Your task to perform on an android device: toggle show notifications on the lock screen Image 0: 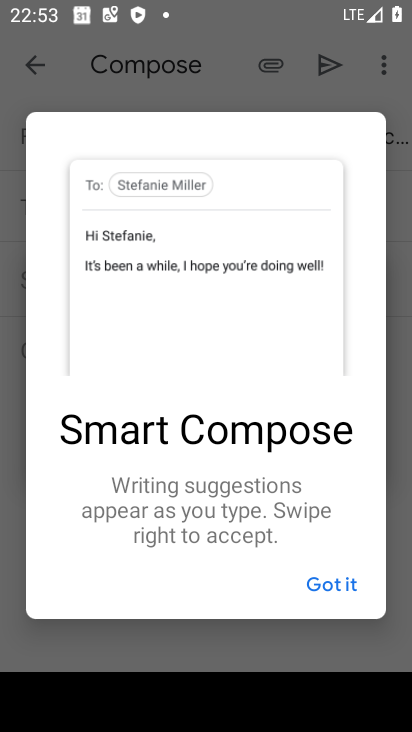
Step 0: press home button
Your task to perform on an android device: toggle show notifications on the lock screen Image 1: 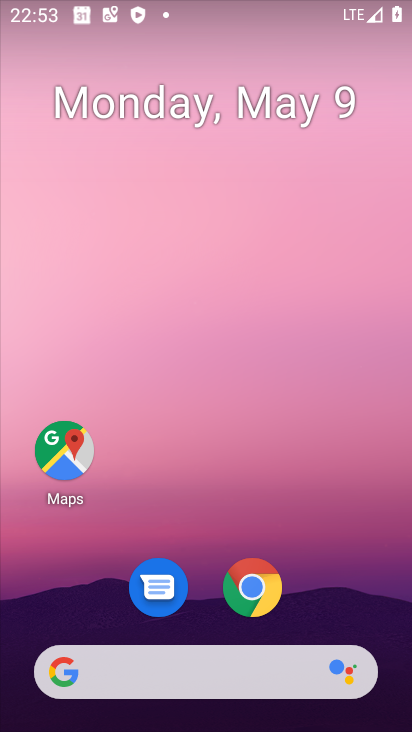
Step 1: drag from (251, 597) to (255, 12)
Your task to perform on an android device: toggle show notifications on the lock screen Image 2: 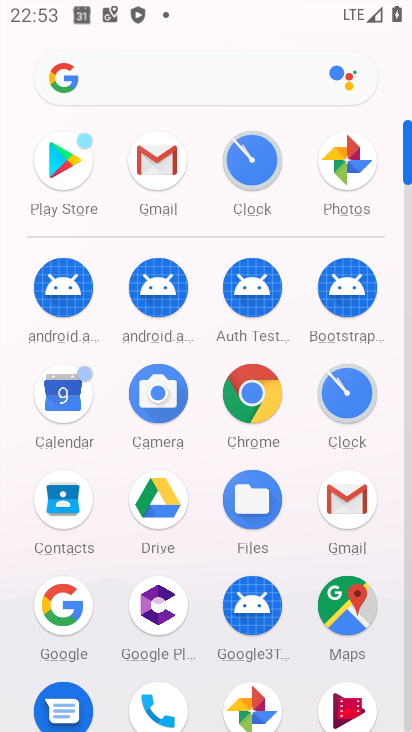
Step 2: drag from (213, 657) to (291, 285)
Your task to perform on an android device: toggle show notifications on the lock screen Image 3: 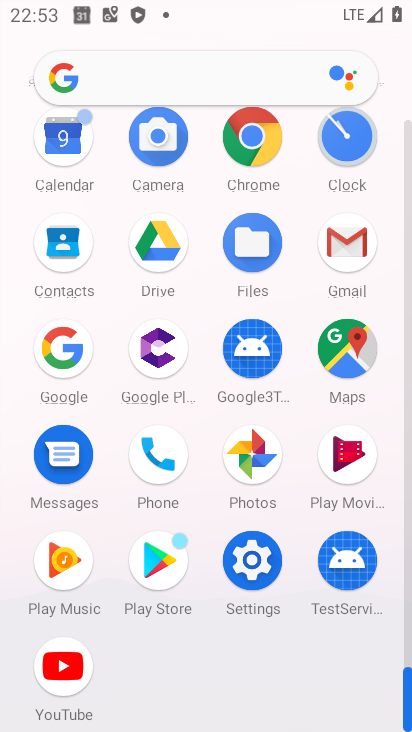
Step 3: click (243, 579)
Your task to perform on an android device: toggle show notifications on the lock screen Image 4: 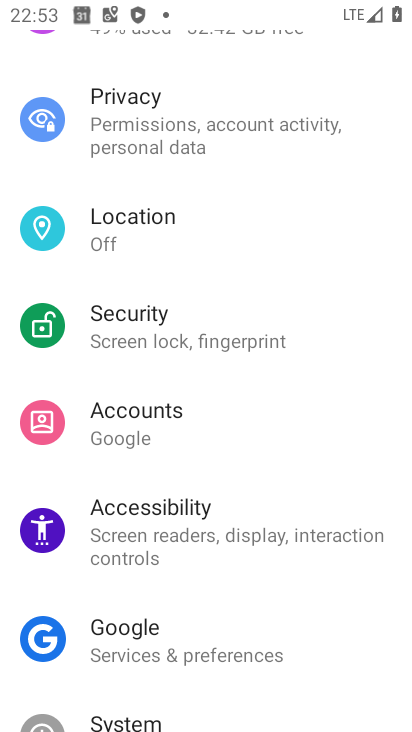
Step 4: drag from (173, 157) to (252, 717)
Your task to perform on an android device: toggle show notifications on the lock screen Image 5: 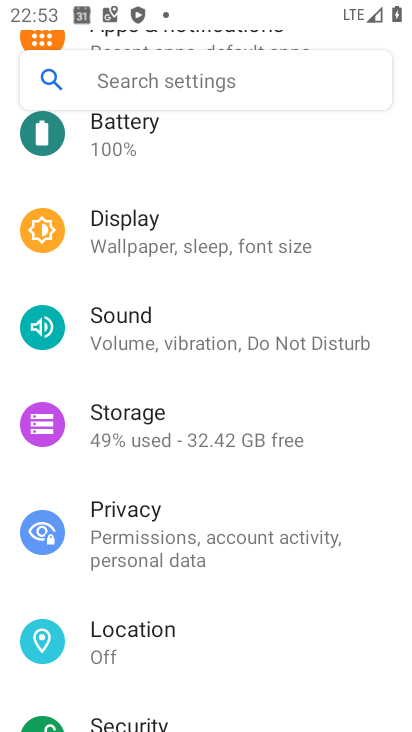
Step 5: drag from (160, 256) to (186, 526)
Your task to perform on an android device: toggle show notifications on the lock screen Image 6: 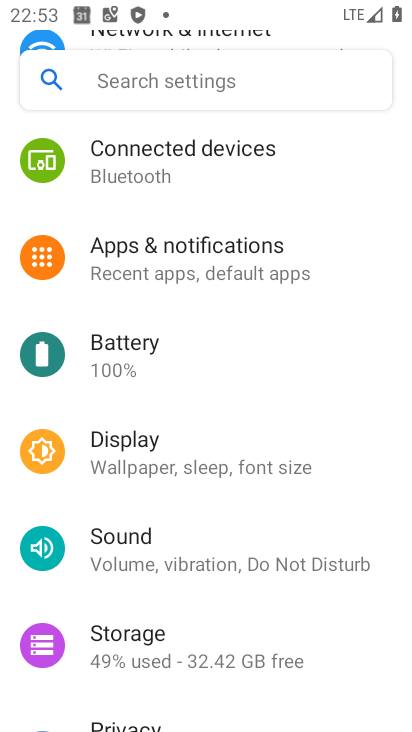
Step 6: click (146, 256)
Your task to perform on an android device: toggle show notifications on the lock screen Image 7: 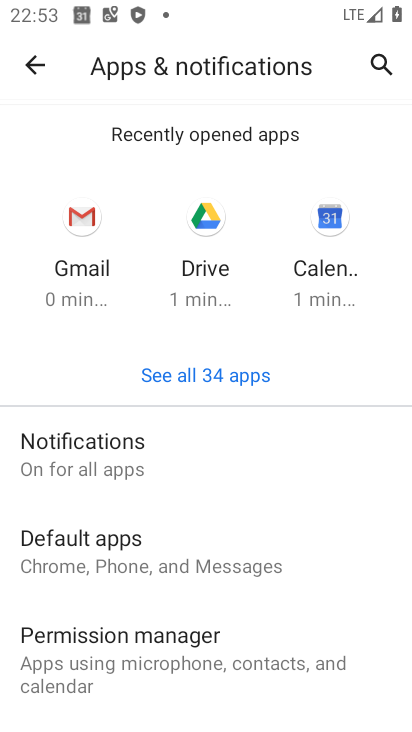
Step 7: click (71, 439)
Your task to perform on an android device: toggle show notifications on the lock screen Image 8: 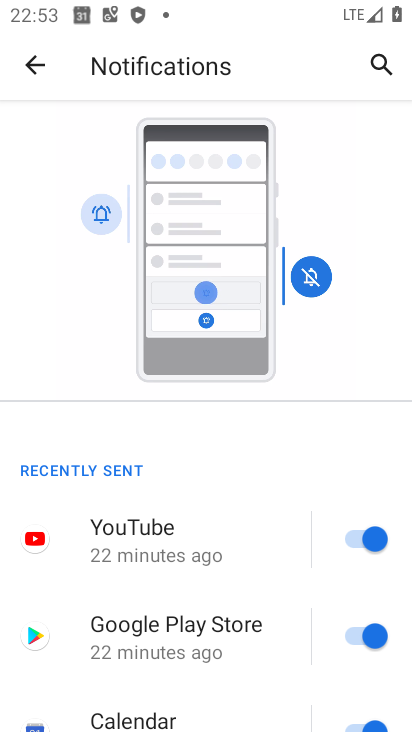
Step 8: drag from (142, 607) to (169, 154)
Your task to perform on an android device: toggle show notifications on the lock screen Image 9: 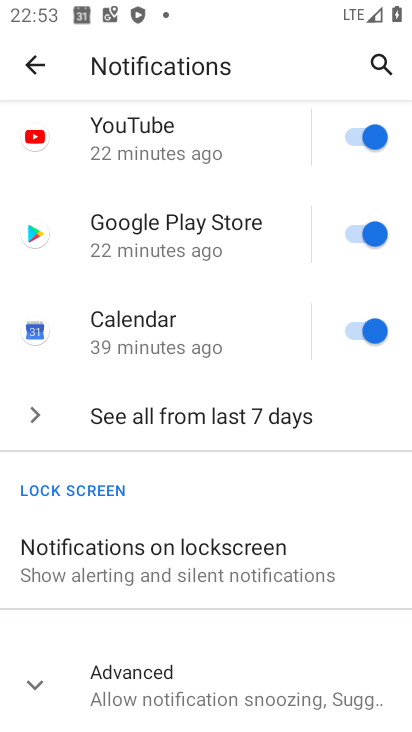
Step 9: click (197, 542)
Your task to perform on an android device: toggle show notifications on the lock screen Image 10: 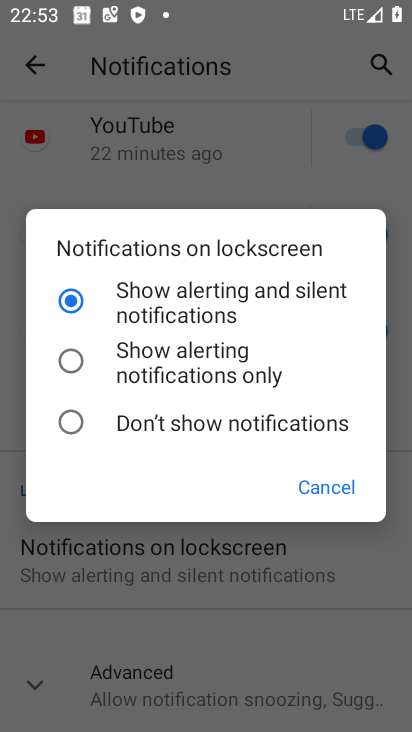
Step 10: task complete